Your task to perform on an android device: Open Chrome and go to the settings page Image 0: 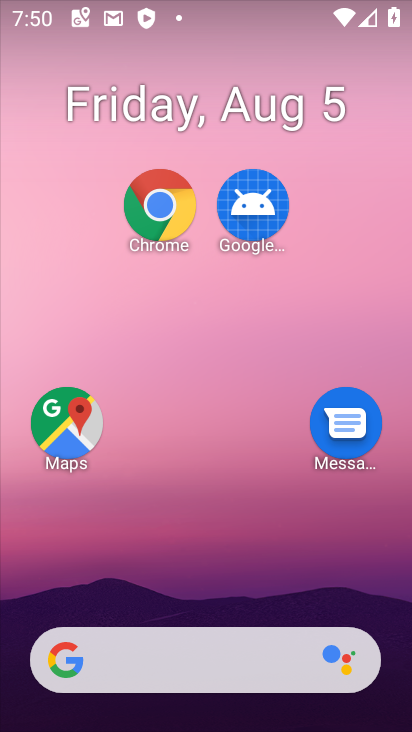
Step 0: click (174, 226)
Your task to perform on an android device: Open Chrome and go to the settings page Image 1: 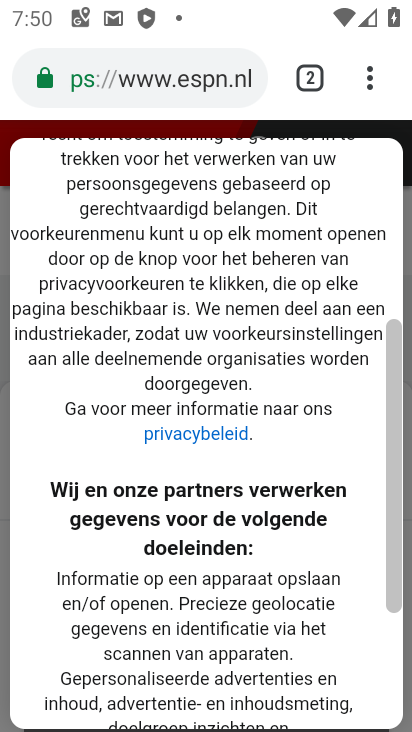
Step 1: click (381, 78)
Your task to perform on an android device: Open Chrome and go to the settings page Image 2: 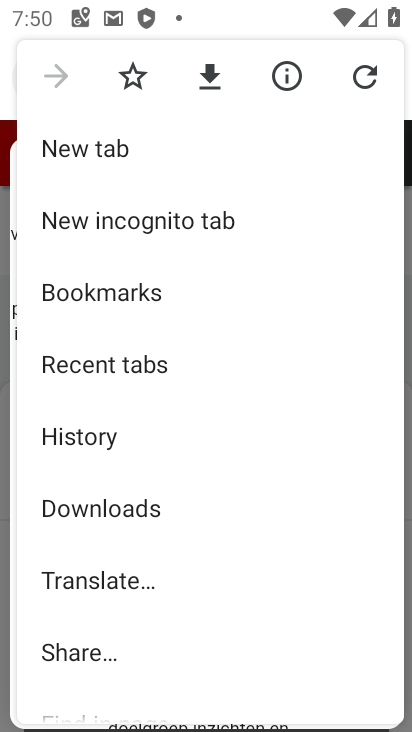
Step 2: drag from (92, 552) to (45, 49)
Your task to perform on an android device: Open Chrome and go to the settings page Image 3: 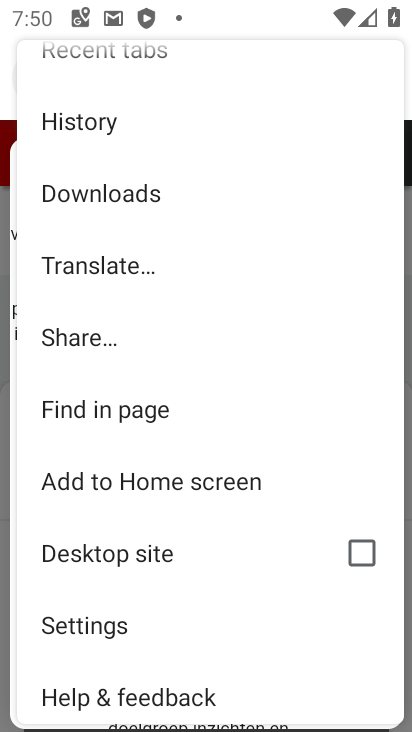
Step 3: click (88, 638)
Your task to perform on an android device: Open Chrome and go to the settings page Image 4: 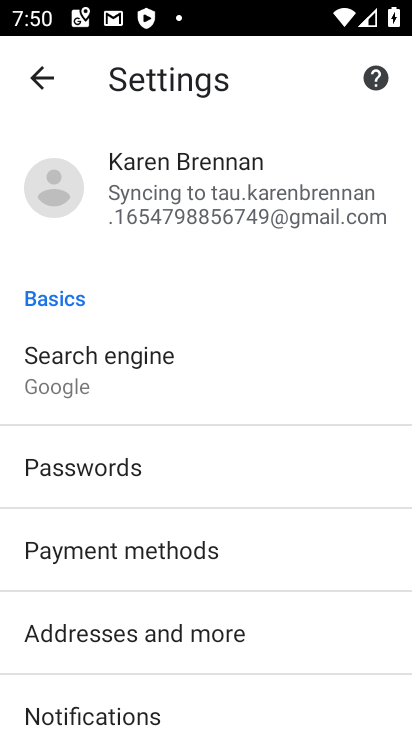
Step 4: task complete